Your task to perform on an android device: open app "Microsoft Excel" (install if not already installed) Image 0: 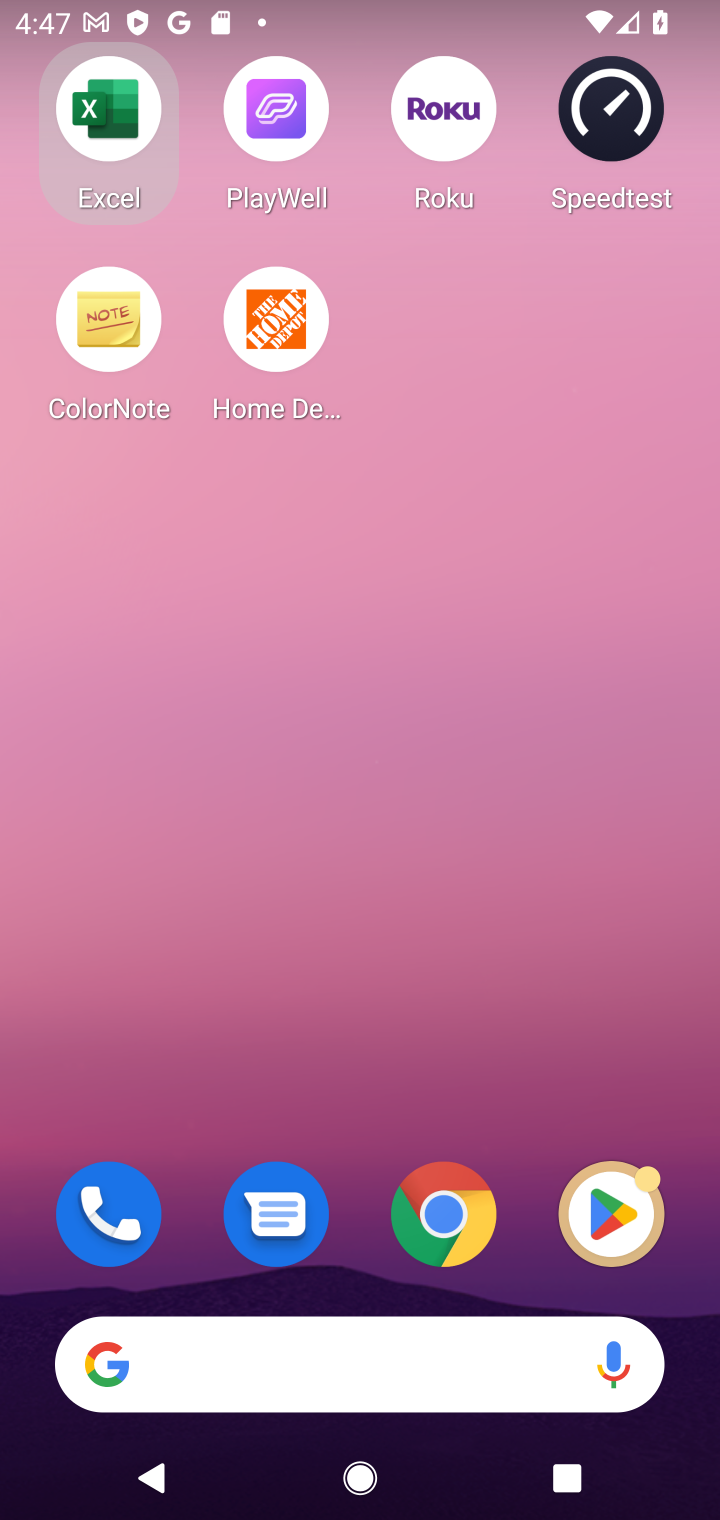
Step 0: click (607, 1221)
Your task to perform on an android device: open app "Microsoft Excel" (install if not already installed) Image 1: 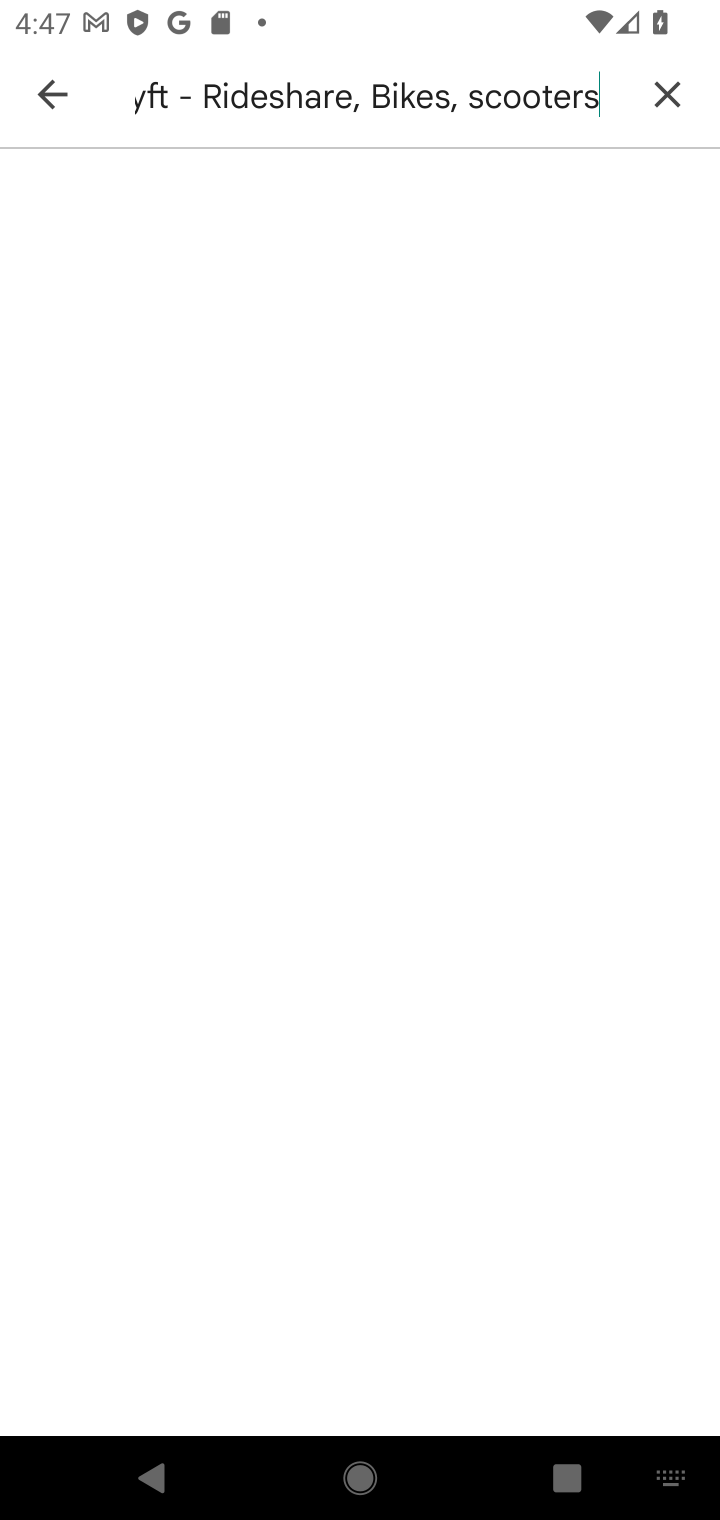
Step 1: click (670, 94)
Your task to perform on an android device: open app "Microsoft Excel" (install if not already installed) Image 2: 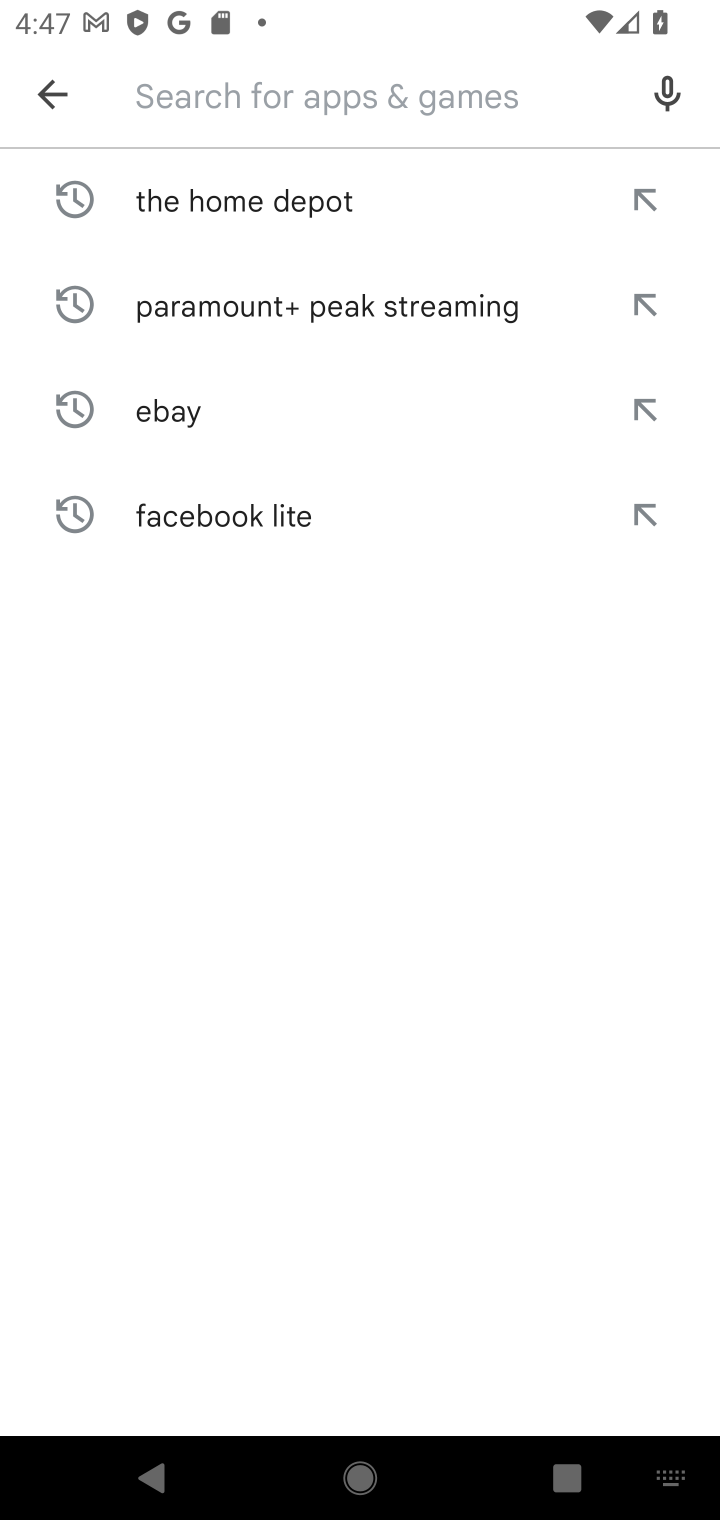
Step 2: type "microsoft excel"
Your task to perform on an android device: open app "Microsoft Excel" (install if not already installed) Image 3: 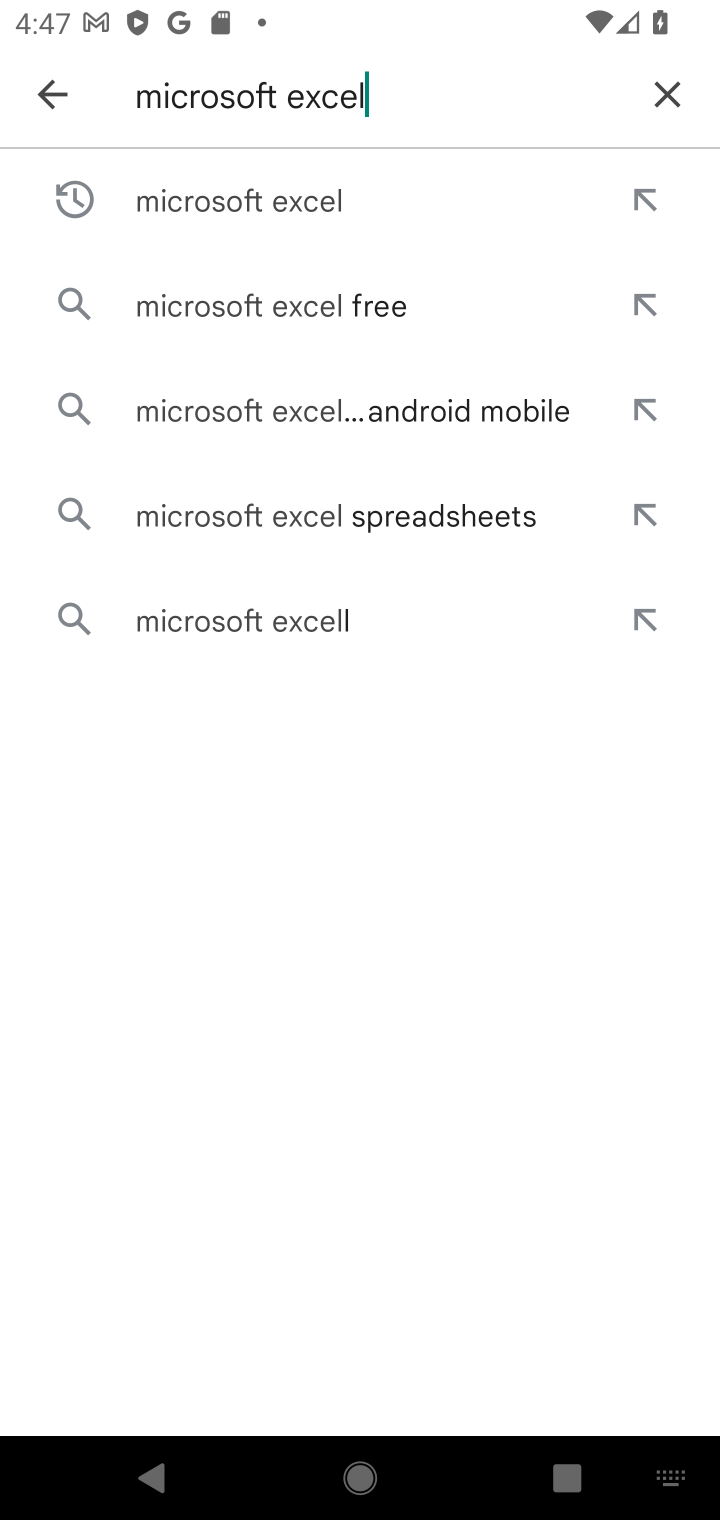
Step 3: click (274, 197)
Your task to perform on an android device: open app "Microsoft Excel" (install if not already installed) Image 4: 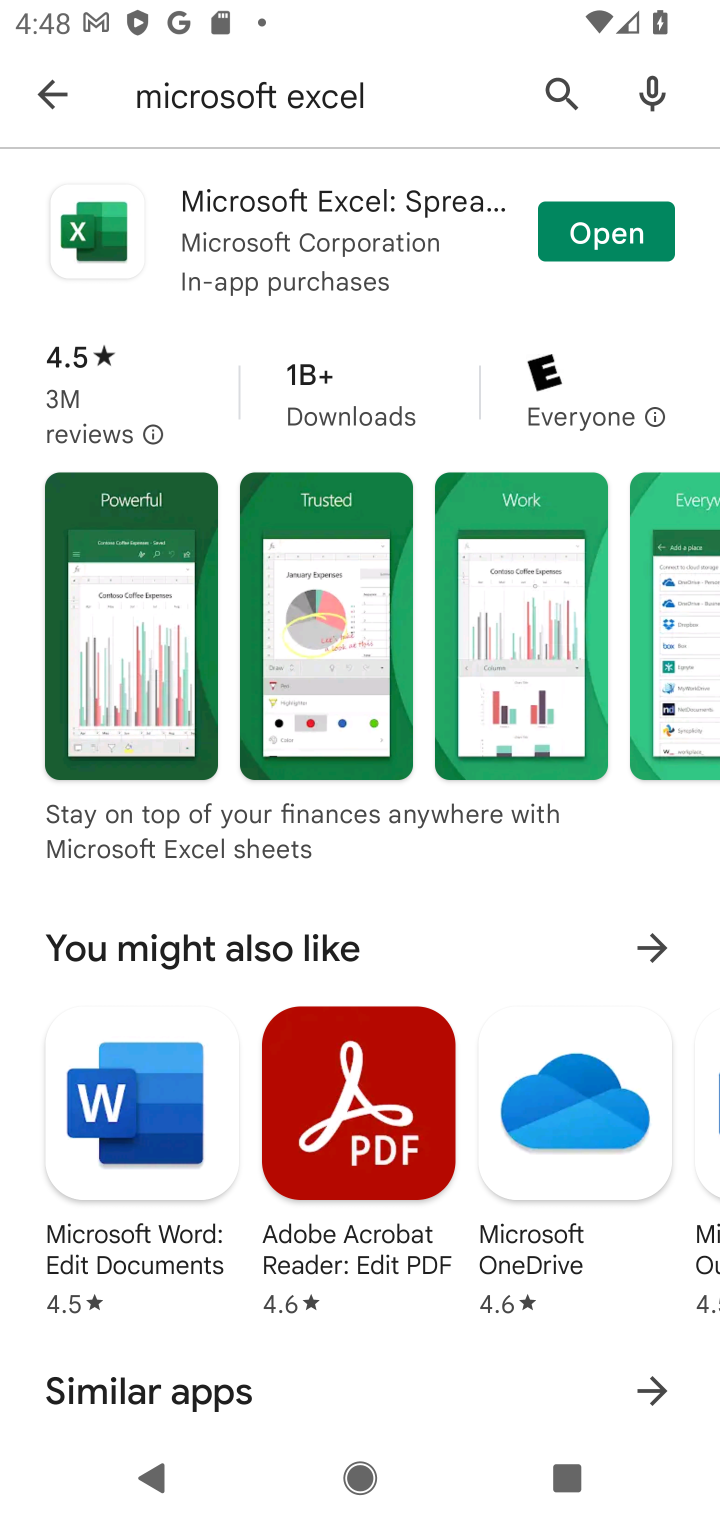
Step 4: click (588, 234)
Your task to perform on an android device: open app "Microsoft Excel" (install if not already installed) Image 5: 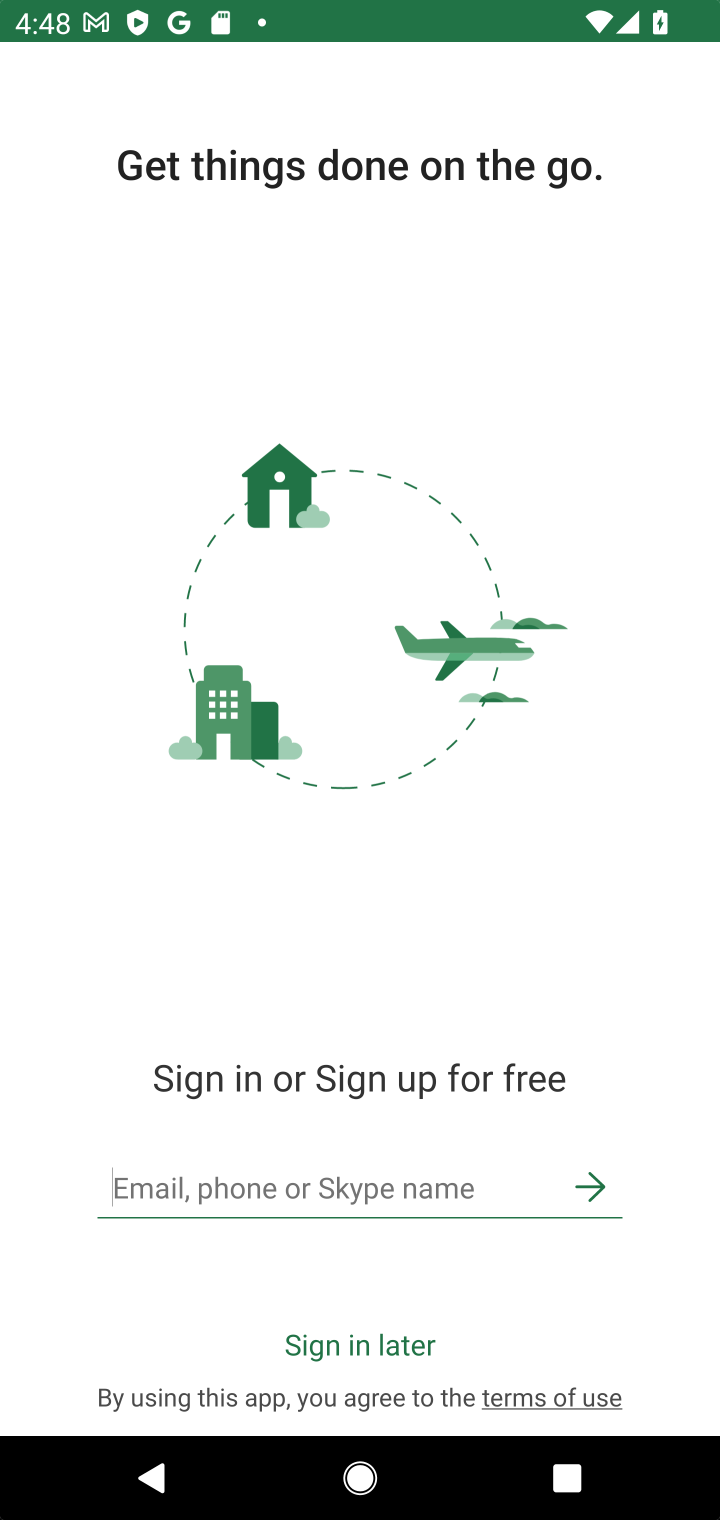
Step 5: task complete